Your task to perform on an android device: Open privacy settings Image 0: 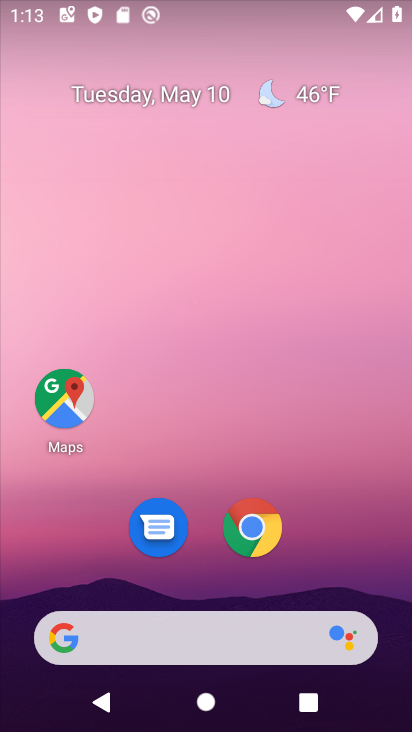
Step 0: drag from (371, 598) to (358, 2)
Your task to perform on an android device: Open privacy settings Image 1: 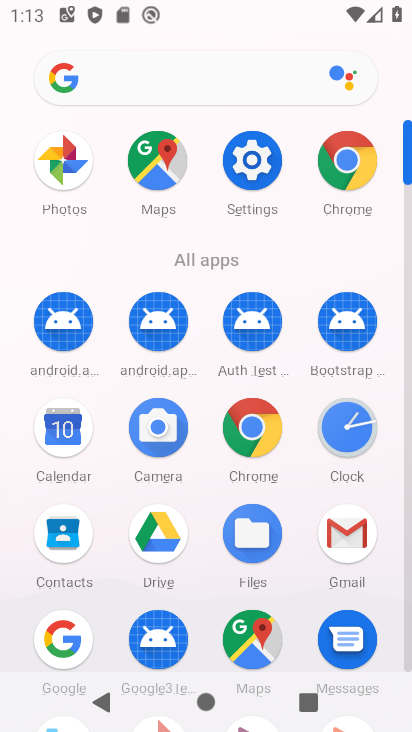
Step 1: click (250, 164)
Your task to perform on an android device: Open privacy settings Image 2: 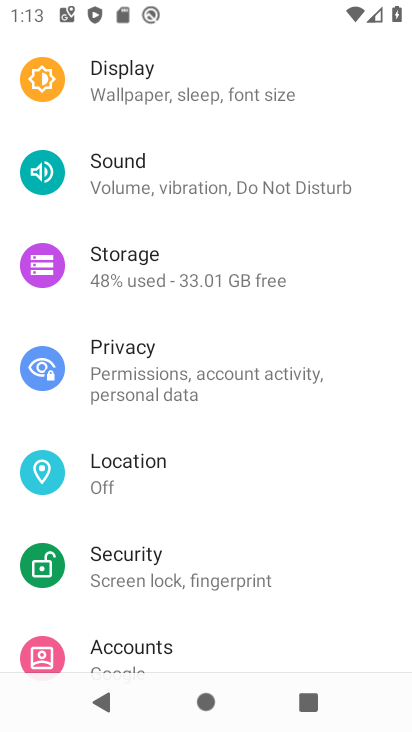
Step 2: click (136, 392)
Your task to perform on an android device: Open privacy settings Image 3: 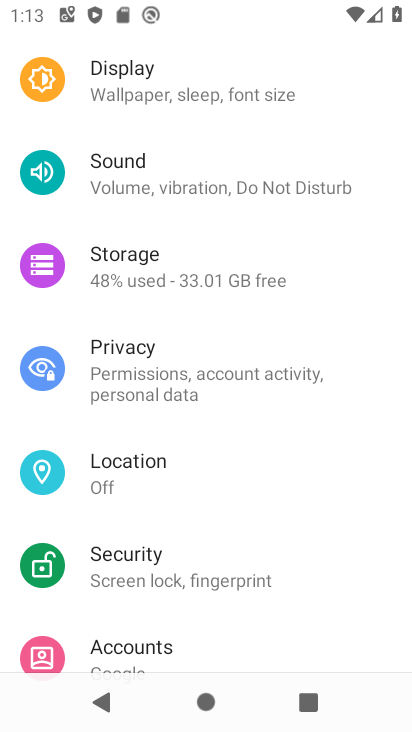
Step 3: click (109, 387)
Your task to perform on an android device: Open privacy settings Image 4: 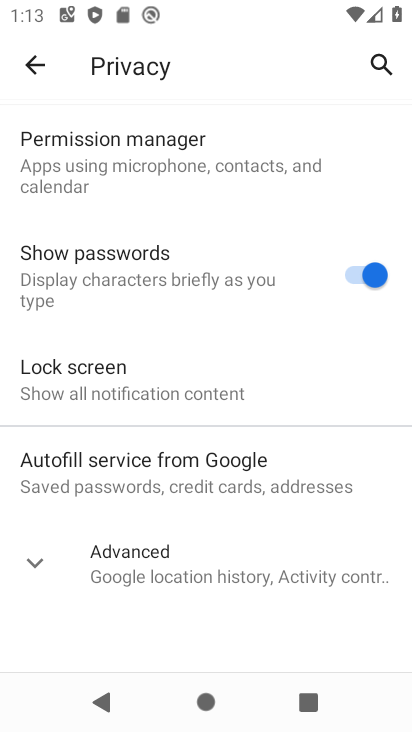
Step 4: task complete